Your task to perform on an android device: toggle wifi Image 0: 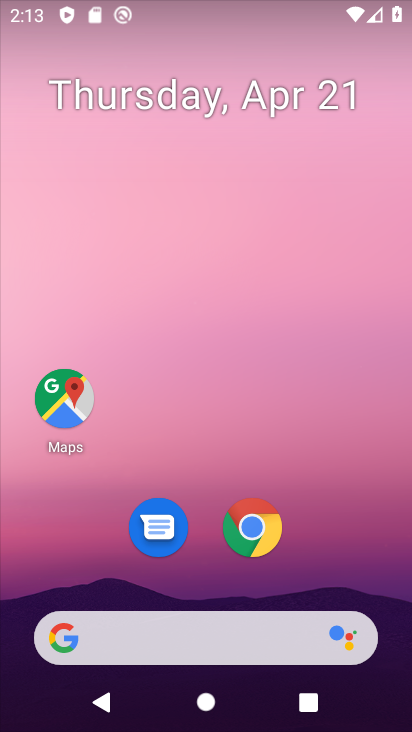
Step 0: drag from (312, 567) to (316, 123)
Your task to perform on an android device: toggle wifi Image 1: 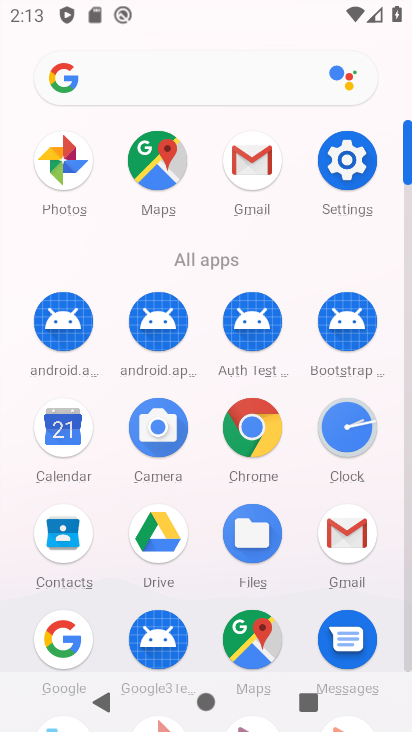
Step 1: click (345, 168)
Your task to perform on an android device: toggle wifi Image 2: 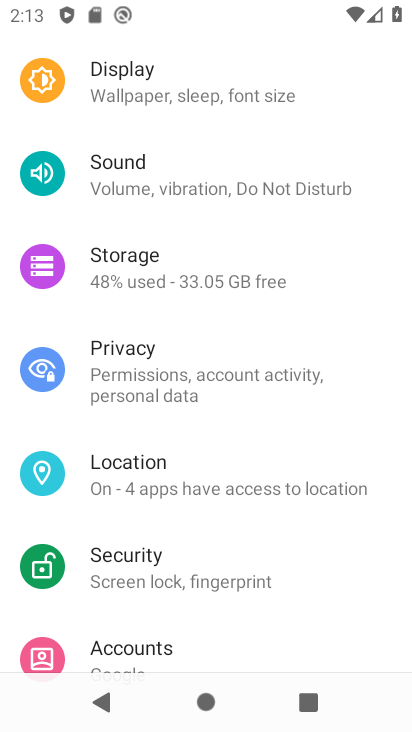
Step 2: drag from (139, 148) to (169, 618)
Your task to perform on an android device: toggle wifi Image 3: 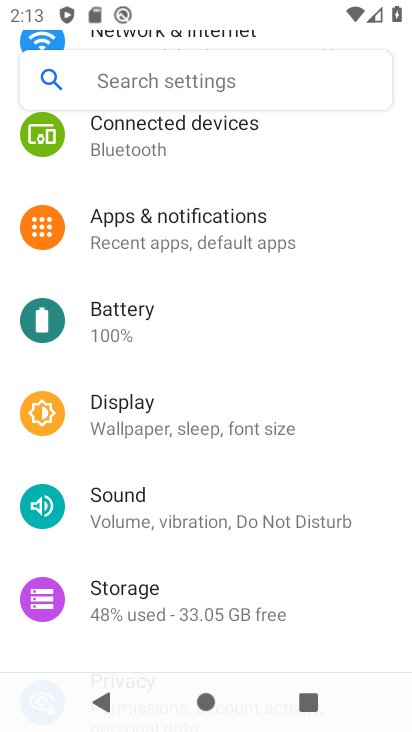
Step 3: drag from (198, 179) to (227, 584)
Your task to perform on an android device: toggle wifi Image 4: 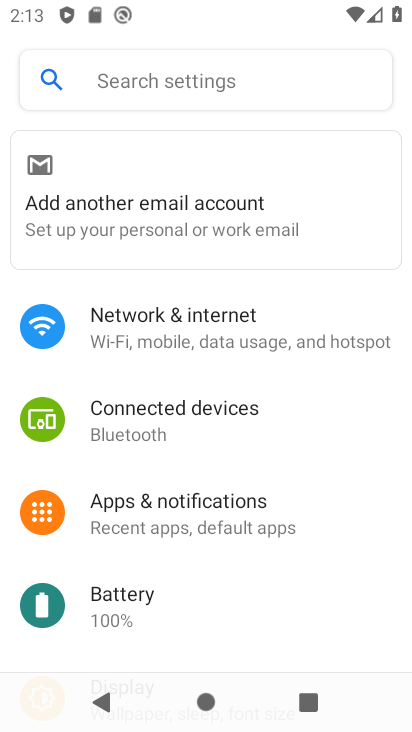
Step 4: click (176, 330)
Your task to perform on an android device: toggle wifi Image 5: 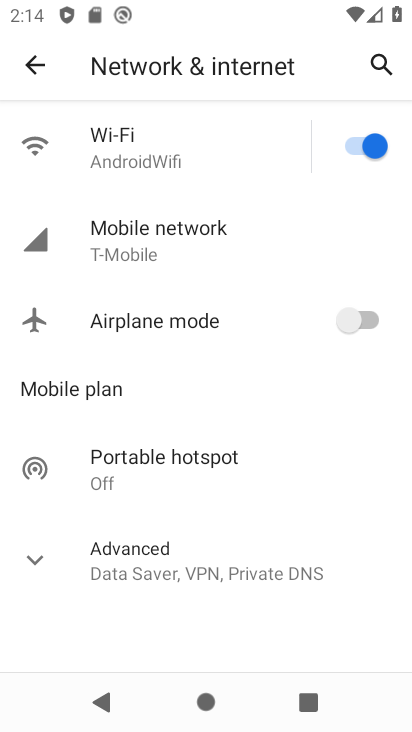
Step 5: click (356, 142)
Your task to perform on an android device: toggle wifi Image 6: 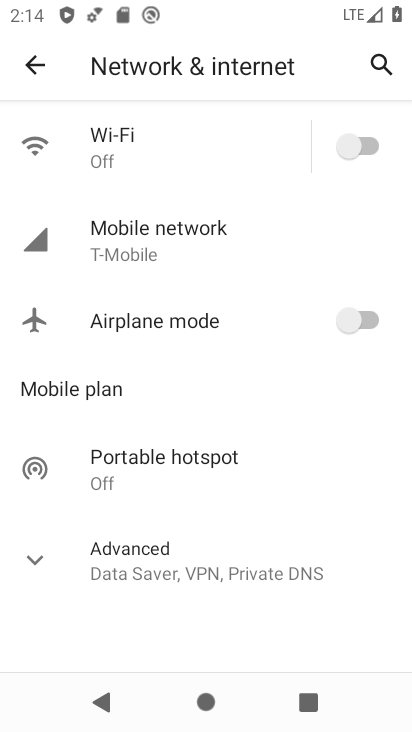
Step 6: task complete